Your task to perform on an android device: Go to Android settings Image 0: 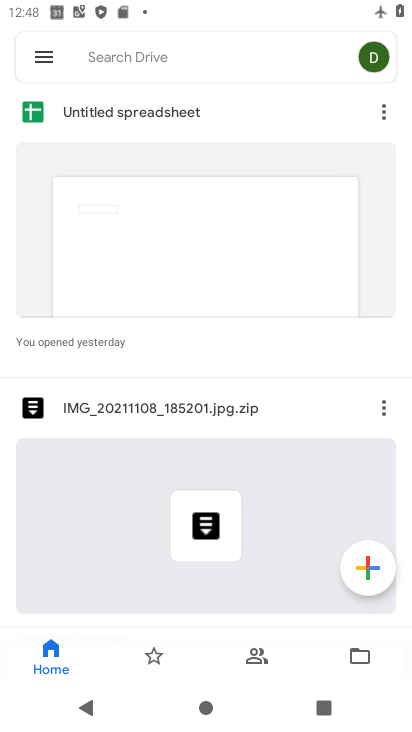
Step 0: press home button
Your task to perform on an android device: Go to Android settings Image 1: 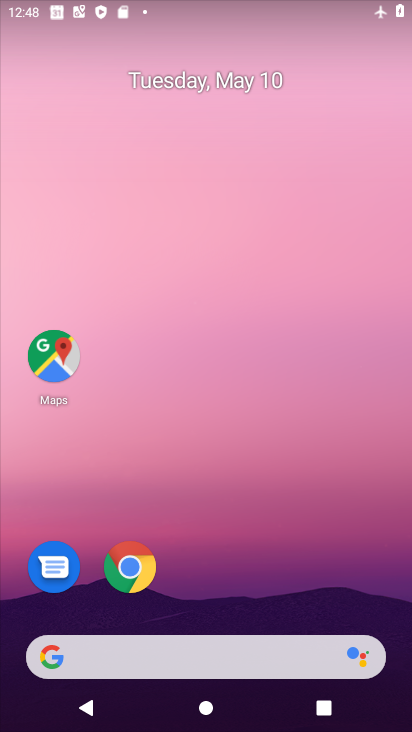
Step 1: drag from (369, 594) to (229, 100)
Your task to perform on an android device: Go to Android settings Image 2: 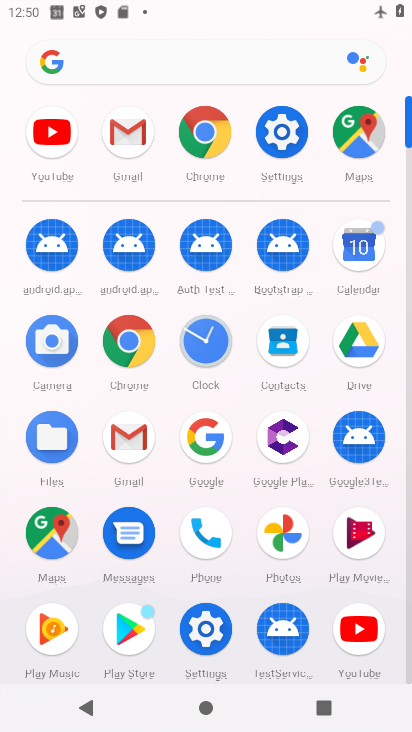
Step 2: click (207, 644)
Your task to perform on an android device: Go to Android settings Image 3: 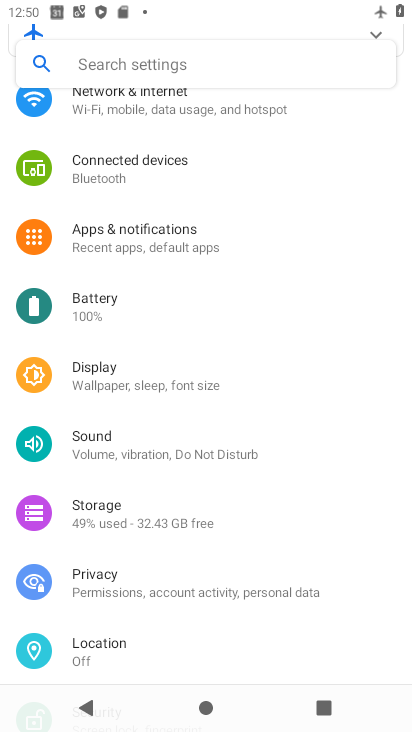
Step 3: drag from (202, 595) to (174, 48)
Your task to perform on an android device: Go to Android settings Image 4: 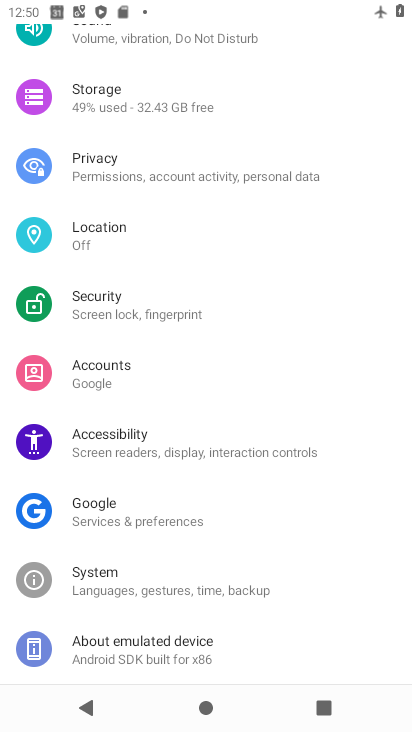
Step 4: click (187, 682)
Your task to perform on an android device: Go to Android settings Image 5: 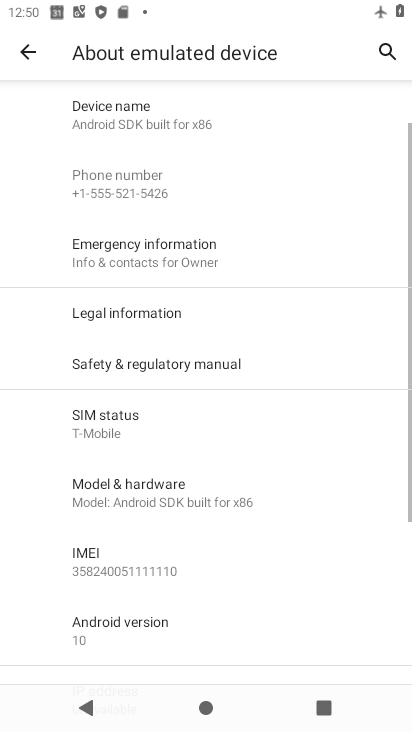
Step 5: click (164, 619)
Your task to perform on an android device: Go to Android settings Image 6: 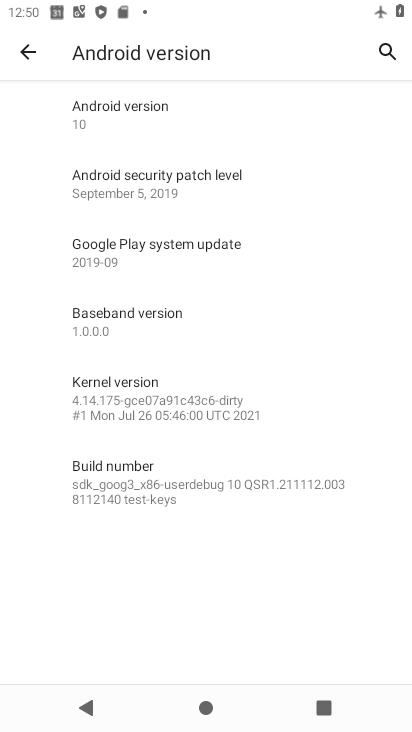
Step 6: task complete